Your task to perform on an android device: allow cookies in the chrome app Image 0: 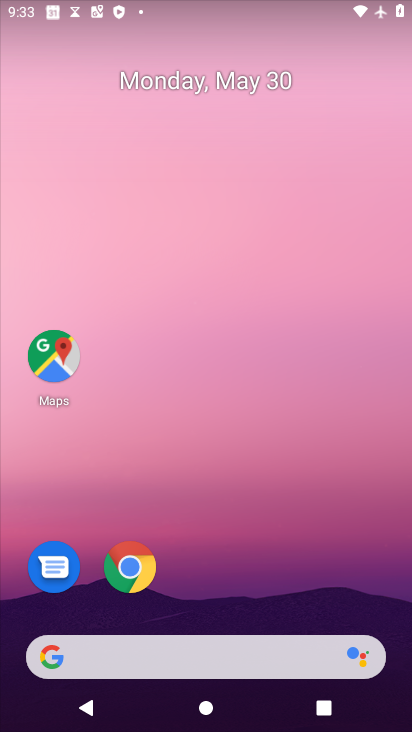
Step 0: drag from (293, 595) to (224, 78)
Your task to perform on an android device: allow cookies in the chrome app Image 1: 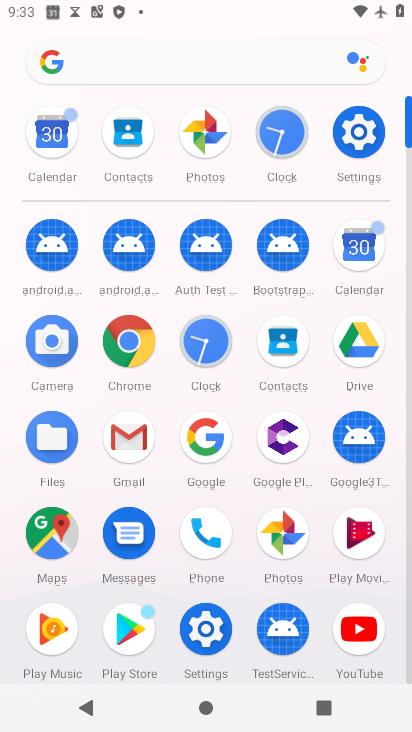
Step 1: click (147, 336)
Your task to perform on an android device: allow cookies in the chrome app Image 2: 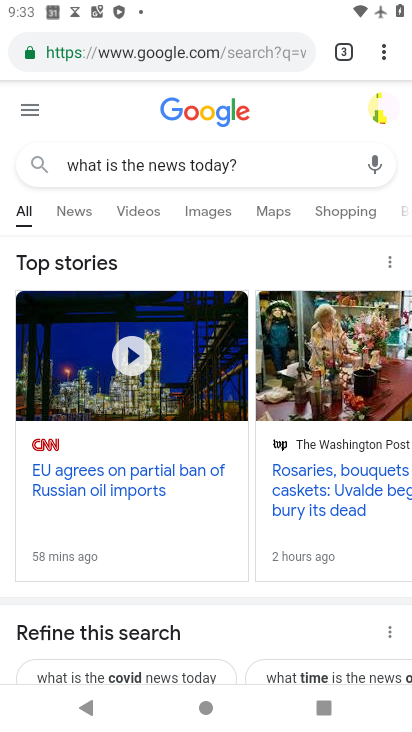
Step 2: click (387, 63)
Your task to perform on an android device: allow cookies in the chrome app Image 3: 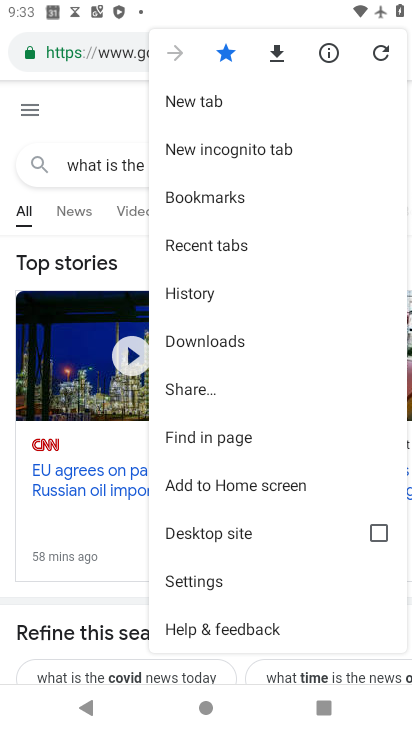
Step 3: click (227, 586)
Your task to perform on an android device: allow cookies in the chrome app Image 4: 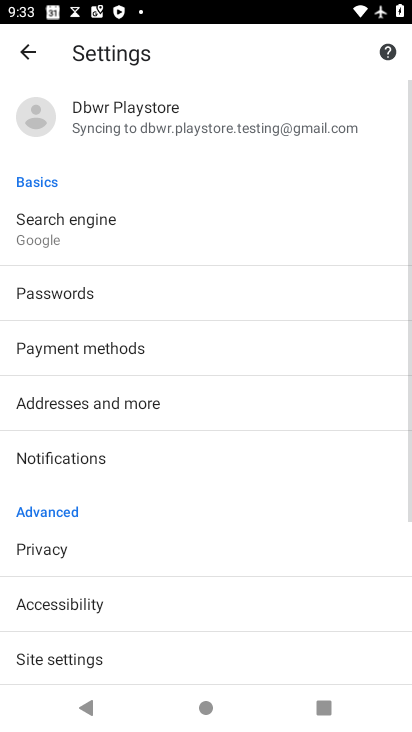
Step 4: drag from (227, 586) to (250, 330)
Your task to perform on an android device: allow cookies in the chrome app Image 5: 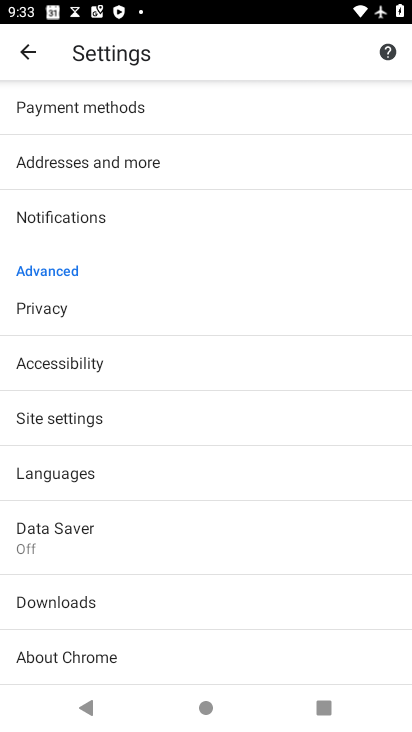
Step 5: click (232, 417)
Your task to perform on an android device: allow cookies in the chrome app Image 6: 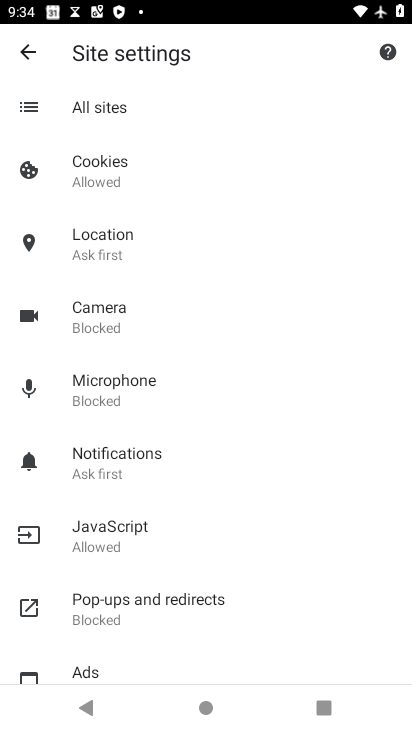
Step 6: click (181, 175)
Your task to perform on an android device: allow cookies in the chrome app Image 7: 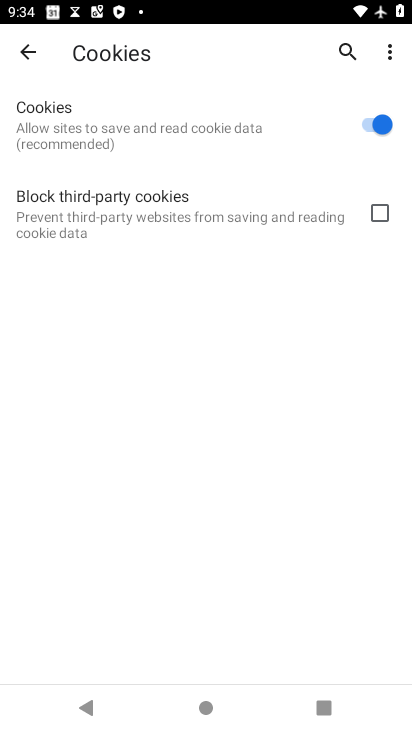
Step 7: task complete